Your task to perform on an android device: refresh tabs in the chrome app Image 0: 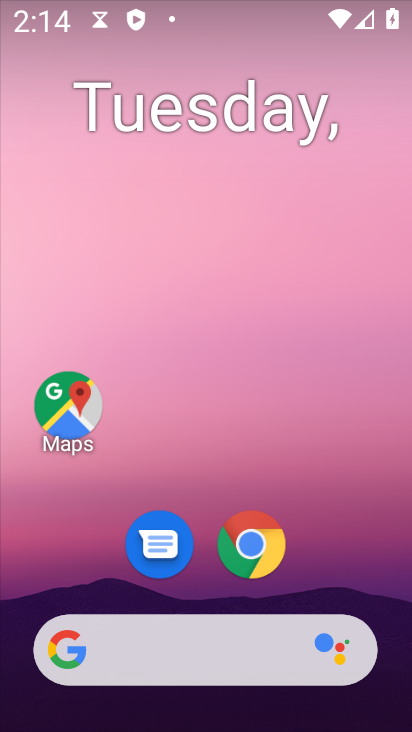
Step 0: drag from (300, 543) to (230, 23)
Your task to perform on an android device: refresh tabs in the chrome app Image 1: 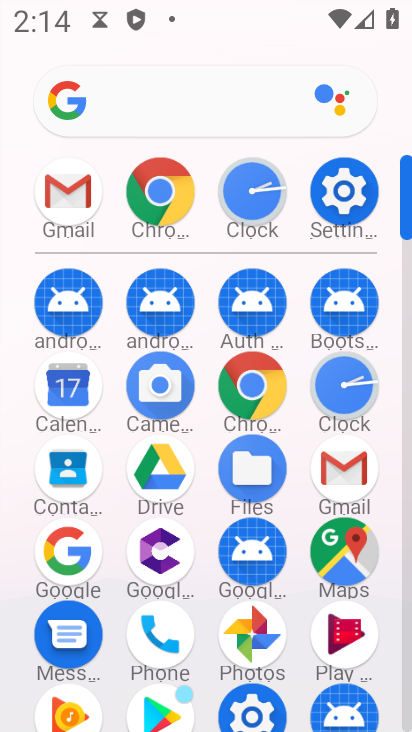
Step 1: drag from (25, 589) to (32, 242)
Your task to perform on an android device: refresh tabs in the chrome app Image 2: 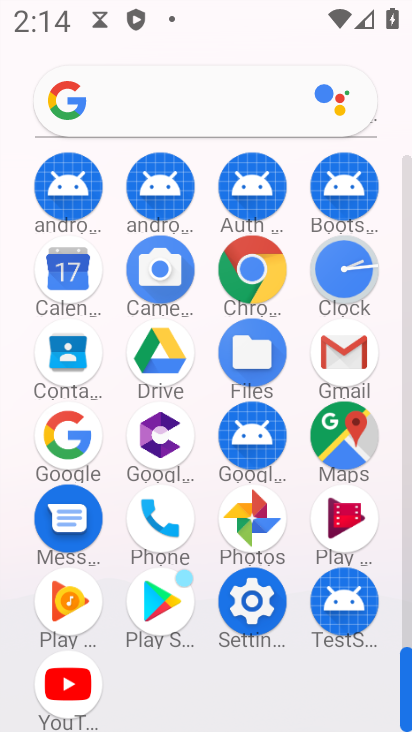
Step 2: click (251, 257)
Your task to perform on an android device: refresh tabs in the chrome app Image 3: 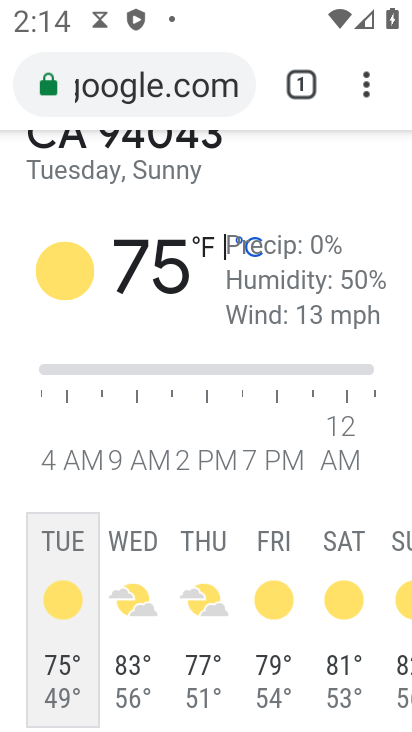
Step 3: click (370, 85)
Your task to perform on an android device: refresh tabs in the chrome app Image 4: 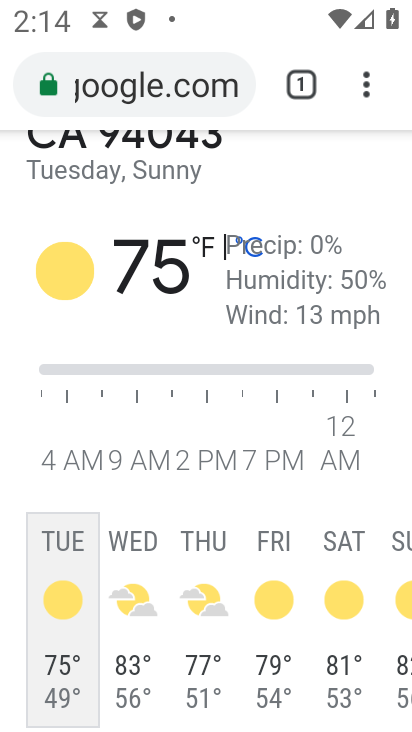
Step 4: click (367, 84)
Your task to perform on an android device: refresh tabs in the chrome app Image 5: 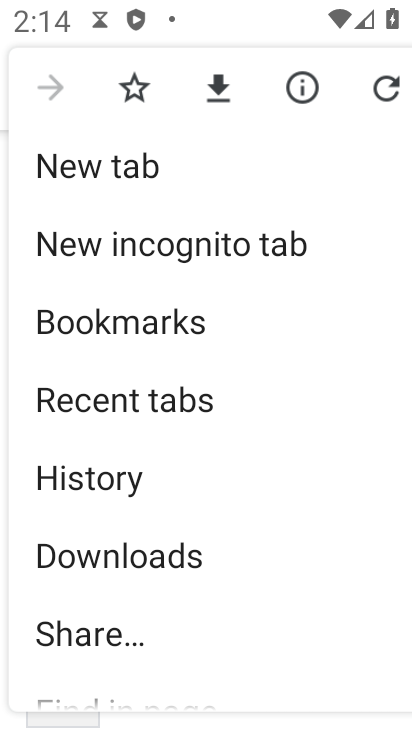
Step 5: task complete